Your task to perform on an android device: Open notification settings Image 0: 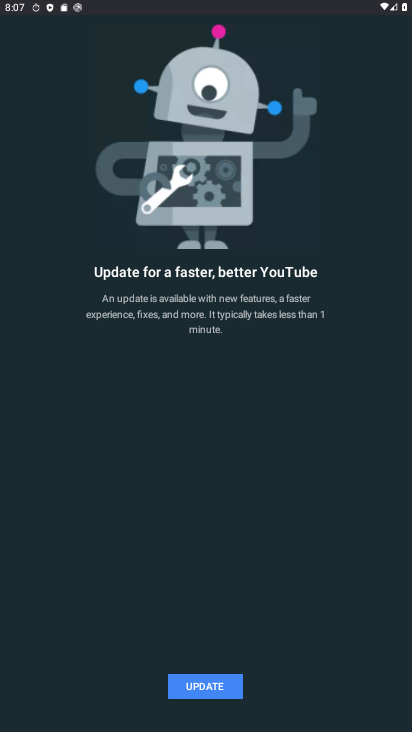
Step 0: press home button
Your task to perform on an android device: Open notification settings Image 1: 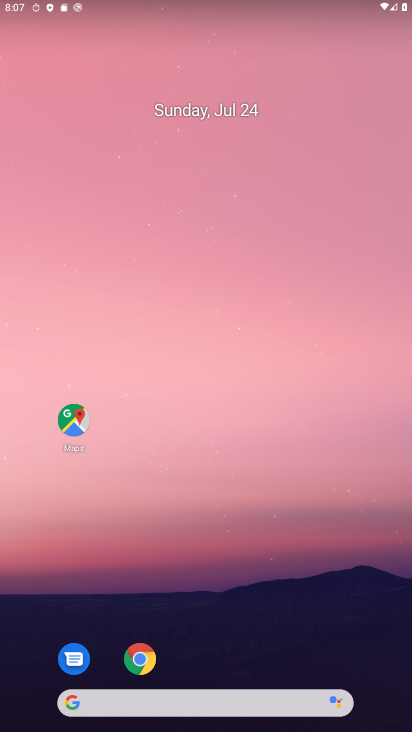
Step 1: drag from (158, 699) to (189, 290)
Your task to perform on an android device: Open notification settings Image 2: 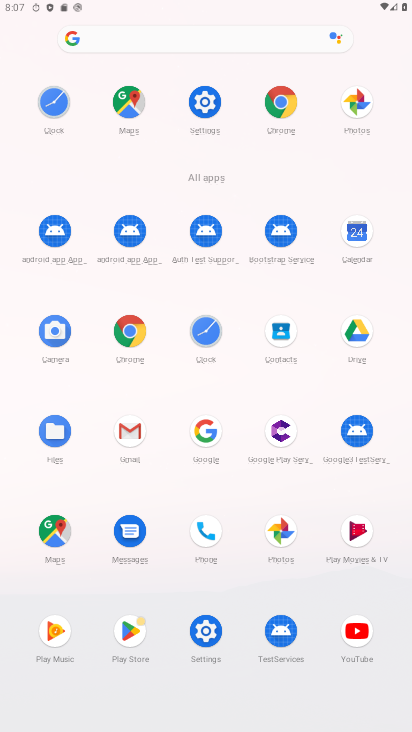
Step 2: click (207, 629)
Your task to perform on an android device: Open notification settings Image 3: 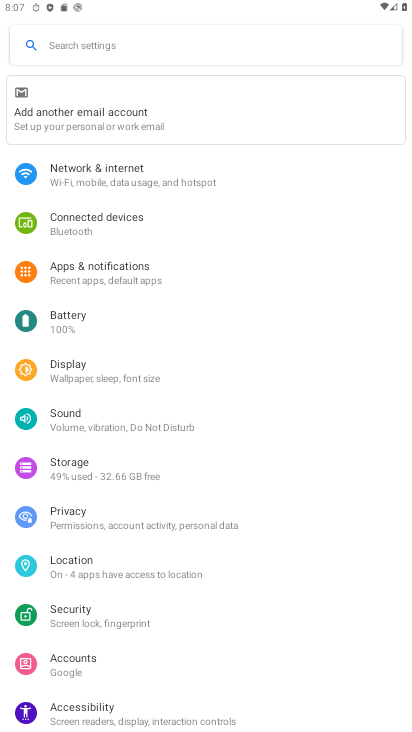
Step 3: click (121, 285)
Your task to perform on an android device: Open notification settings Image 4: 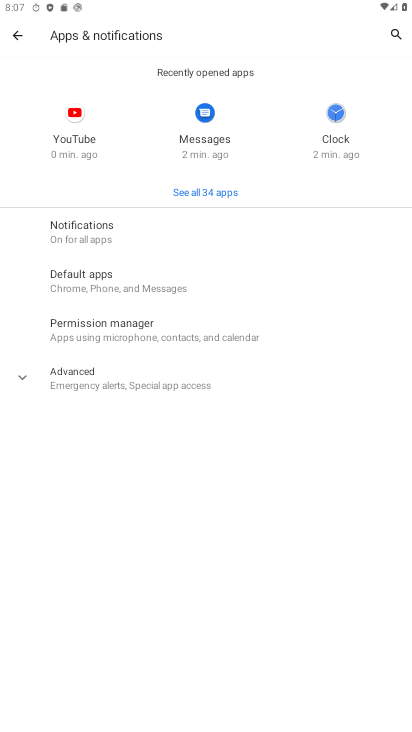
Step 4: click (89, 242)
Your task to perform on an android device: Open notification settings Image 5: 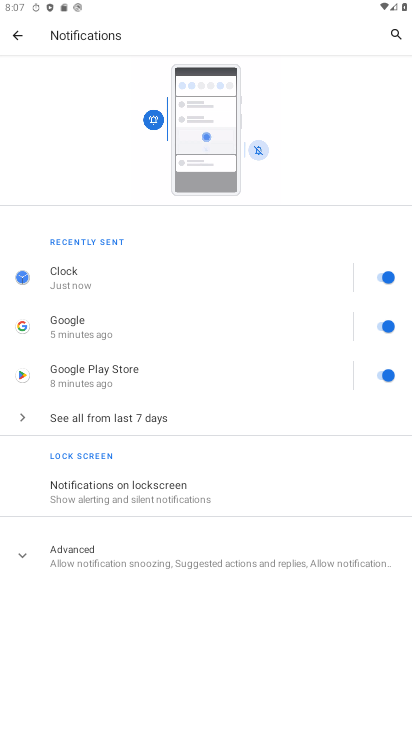
Step 5: task complete